Your task to perform on an android device: turn on the 24-hour format for clock Image 0: 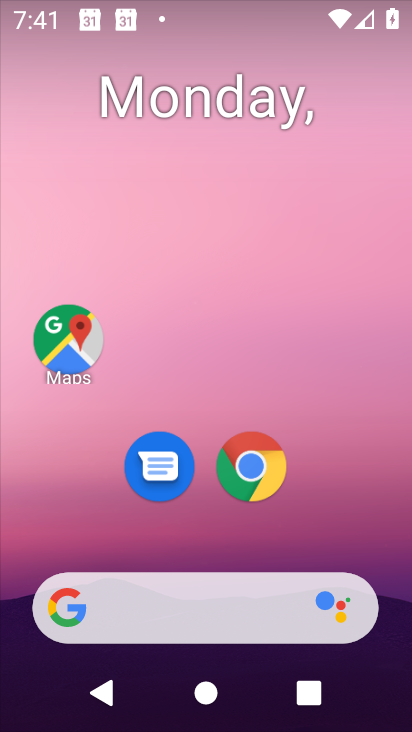
Step 0: drag from (374, 534) to (334, 86)
Your task to perform on an android device: turn on the 24-hour format for clock Image 1: 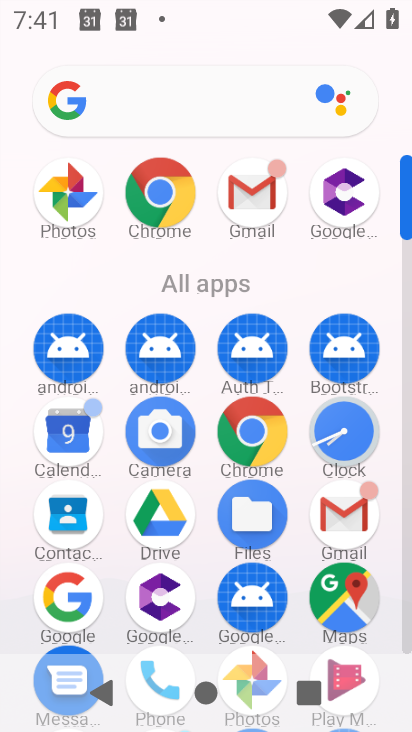
Step 1: click (360, 430)
Your task to perform on an android device: turn on the 24-hour format for clock Image 2: 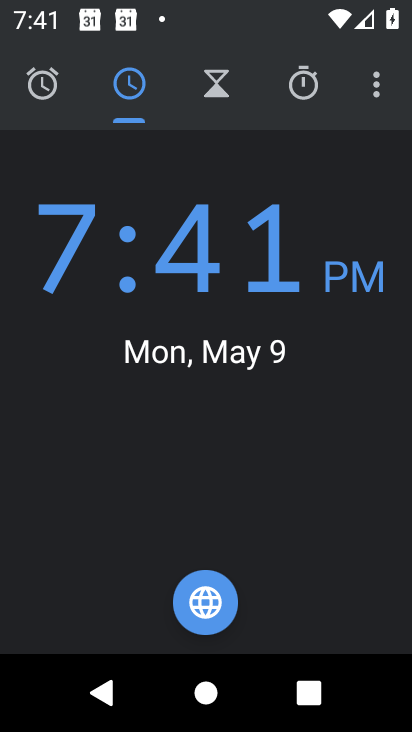
Step 2: click (381, 82)
Your task to perform on an android device: turn on the 24-hour format for clock Image 3: 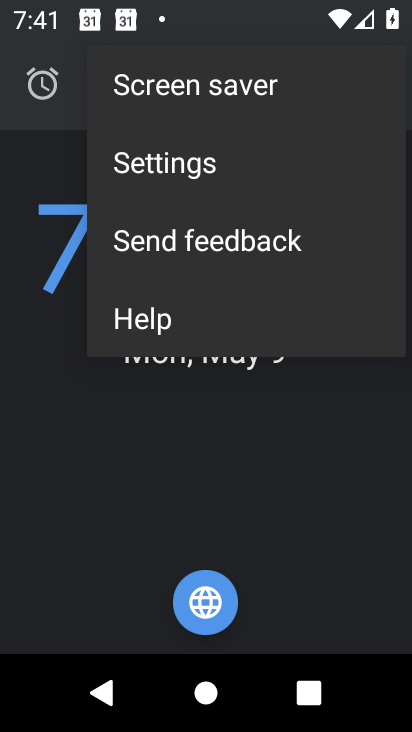
Step 3: click (190, 168)
Your task to perform on an android device: turn on the 24-hour format for clock Image 4: 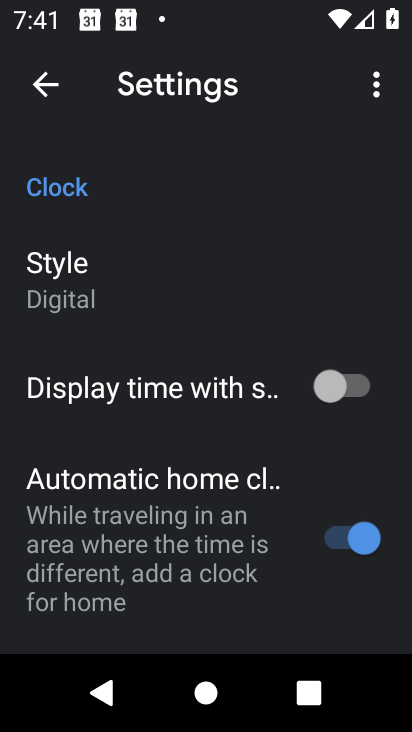
Step 4: drag from (208, 521) to (156, 157)
Your task to perform on an android device: turn on the 24-hour format for clock Image 5: 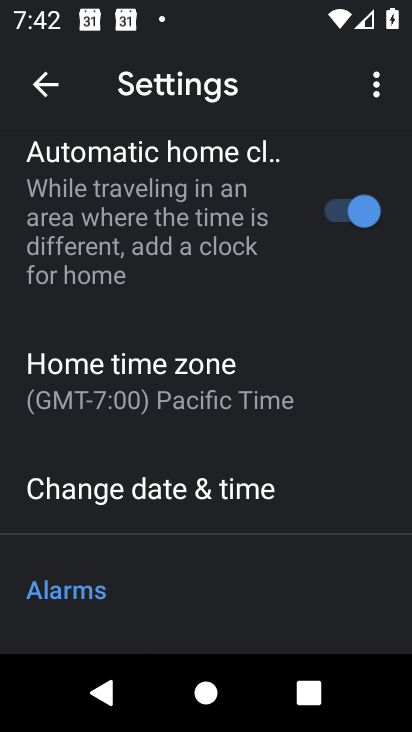
Step 5: click (143, 494)
Your task to perform on an android device: turn on the 24-hour format for clock Image 6: 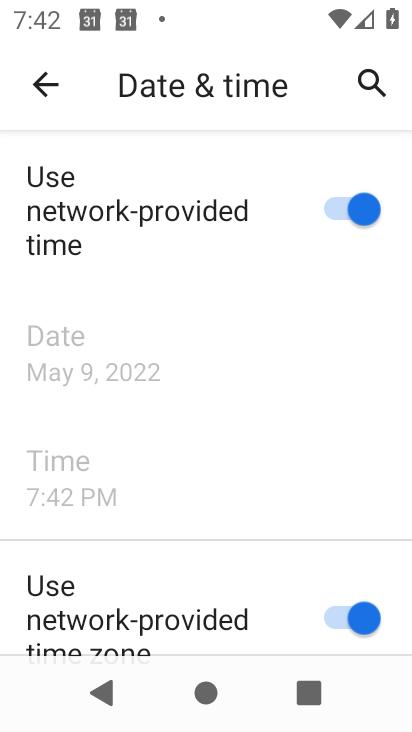
Step 6: drag from (166, 515) to (202, 57)
Your task to perform on an android device: turn on the 24-hour format for clock Image 7: 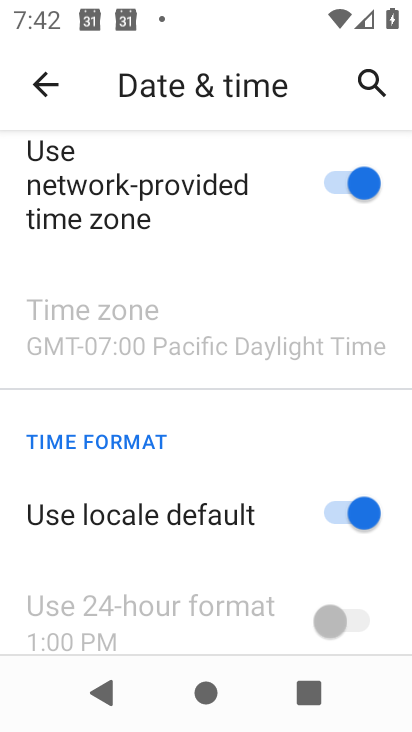
Step 7: drag from (233, 438) to (226, 261)
Your task to perform on an android device: turn on the 24-hour format for clock Image 8: 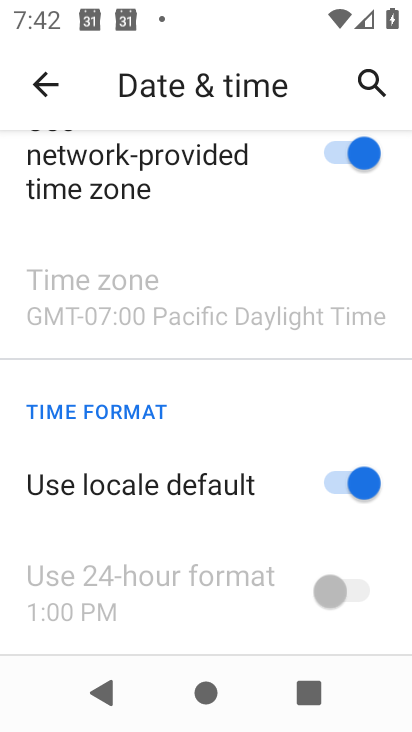
Step 8: click (348, 481)
Your task to perform on an android device: turn on the 24-hour format for clock Image 9: 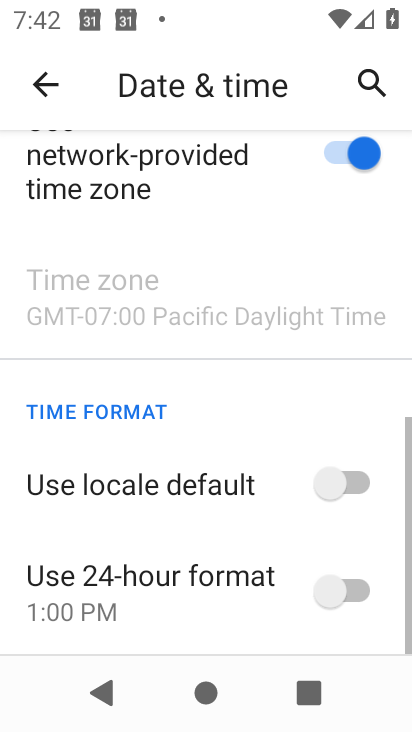
Step 9: click (354, 590)
Your task to perform on an android device: turn on the 24-hour format for clock Image 10: 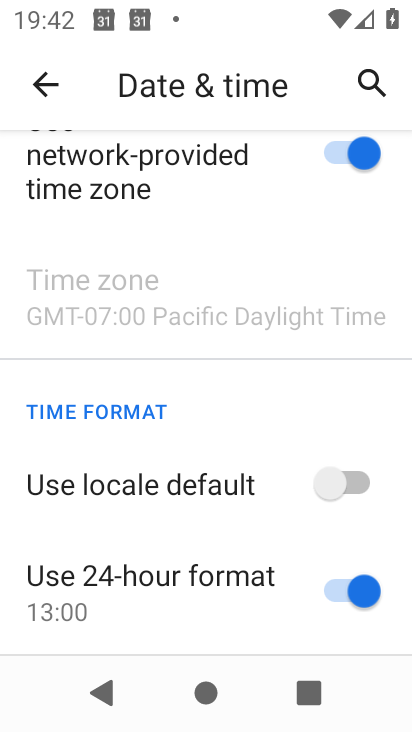
Step 10: task complete